Your task to perform on an android device: search for starred emails in the gmail app Image 0: 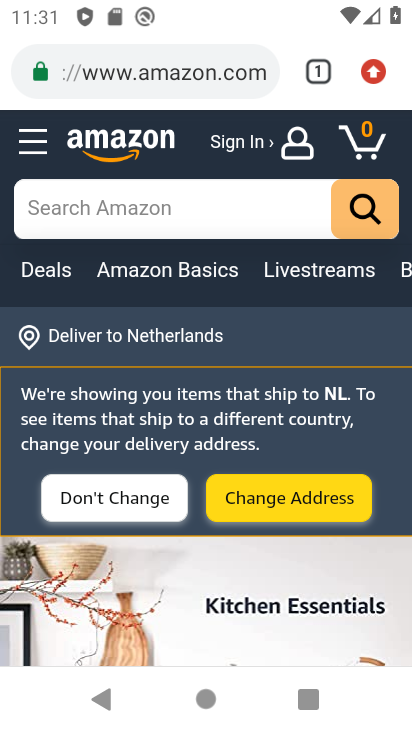
Step 0: press home button
Your task to perform on an android device: search for starred emails in the gmail app Image 1: 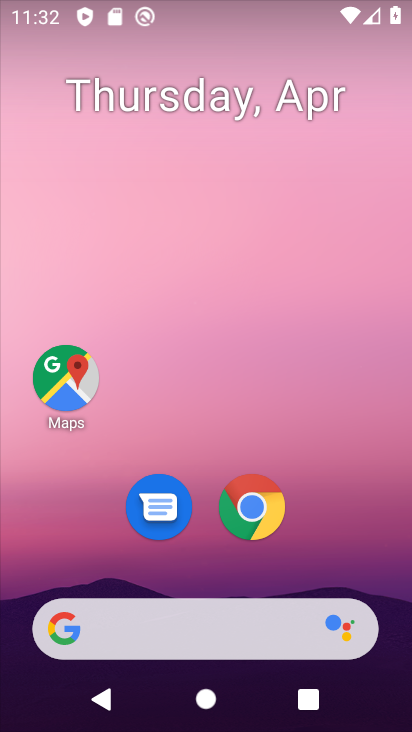
Step 1: drag from (203, 682) to (189, 142)
Your task to perform on an android device: search for starred emails in the gmail app Image 2: 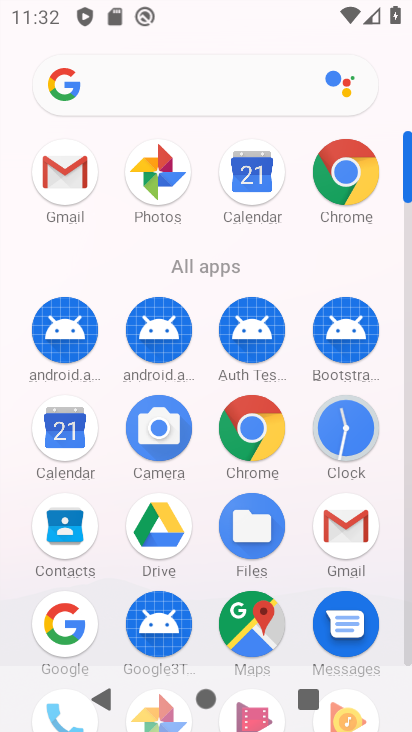
Step 2: click (63, 172)
Your task to perform on an android device: search for starred emails in the gmail app Image 3: 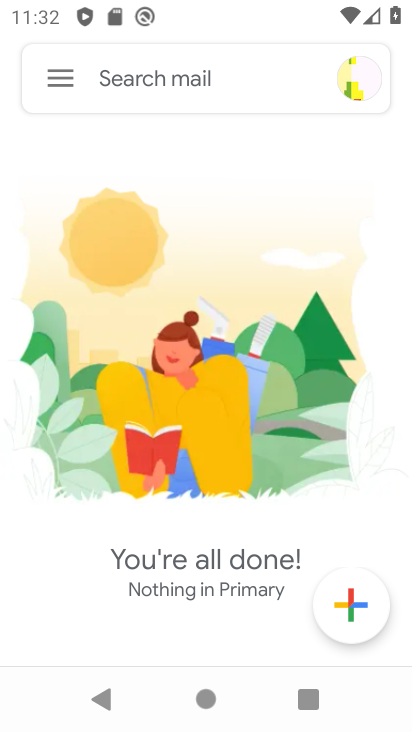
Step 3: click (61, 84)
Your task to perform on an android device: search for starred emails in the gmail app Image 4: 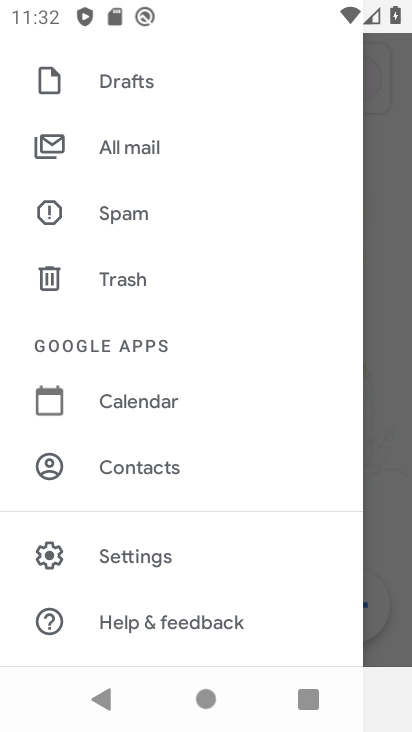
Step 4: drag from (194, 114) to (219, 512)
Your task to perform on an android device: search for starred emails in the gmail app Image 5: 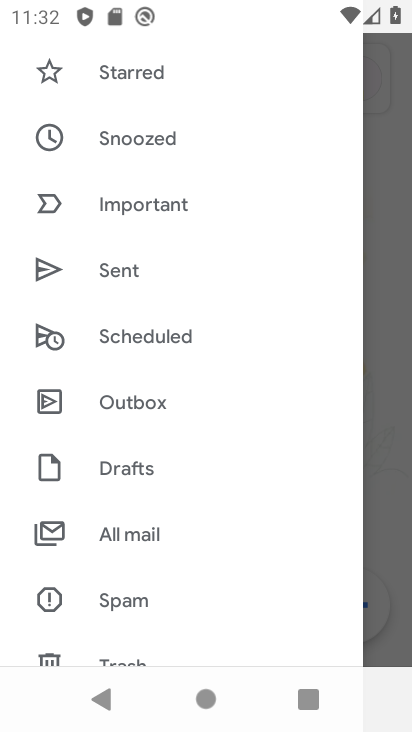
Step 5: click (129, 72)
Your task to perform on an android device: search for starred emails in the gmail app Image 6: 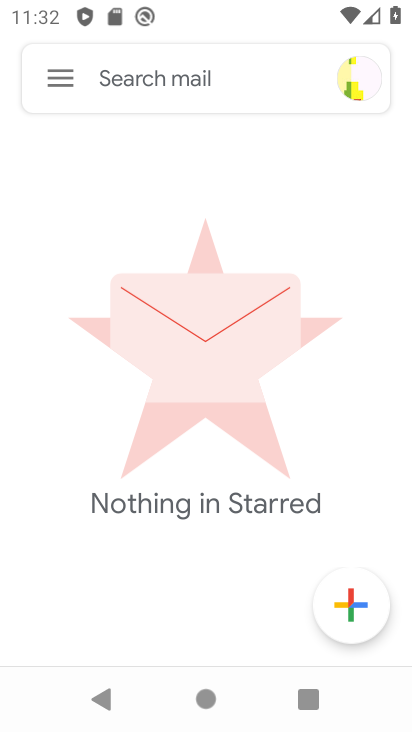
Step 6: task complete